Your task to perform on an android device: Open Youtube and go to the subscriptions tab Image 0: 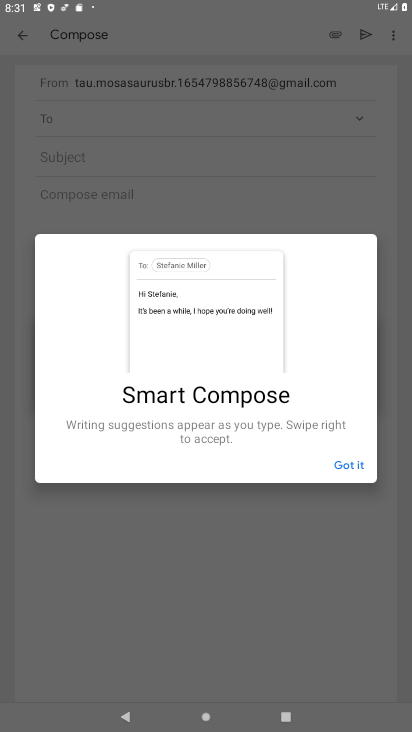
Step 0: press home button
Your task to perform on an android device: Open Youtube and go to the subscriptions tab Image 1: 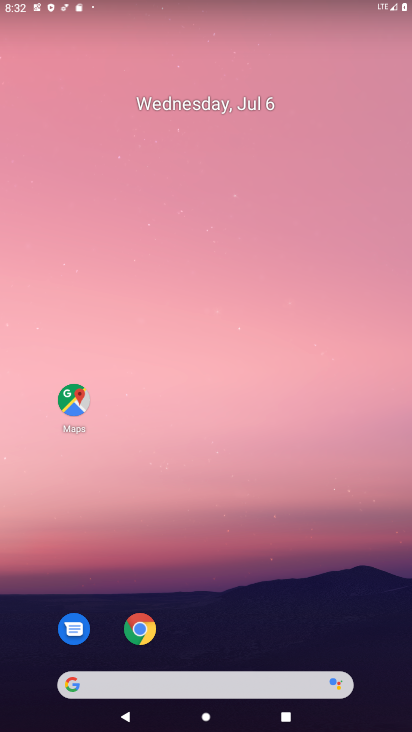
Step 1: drag from (226, 724) to (220, 108)
Your task to perform on an android device: Open Youtube and go to the subscriptions tab Image 2: 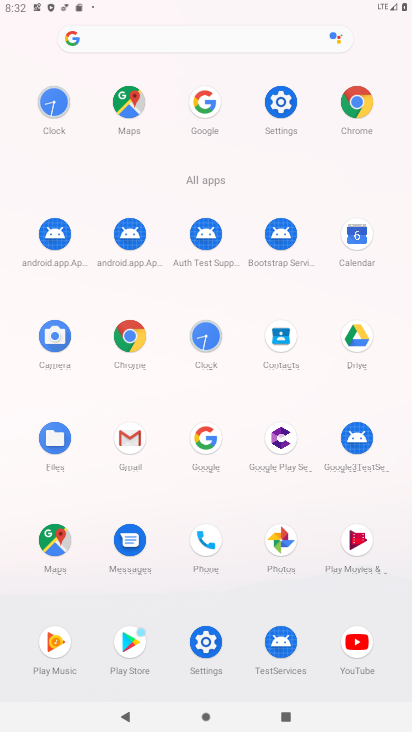
Step 2: click (348, 644)
Your task to perform on an android device: Open Youtube and go to the subscriptions tab Image 3: 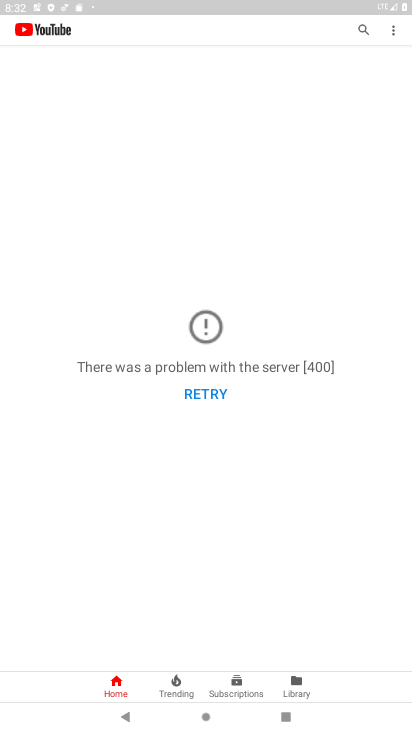
Step 3: click (240, 681)
Your task to perform on an android device: Open Youtube and go to the subscriptions tab Image 4: 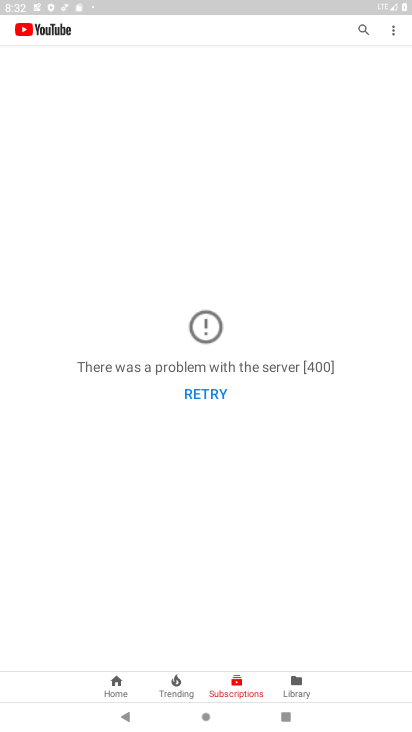
Step 4: task complete